Your task to perform on an android device: open app "Microsoft Authenticator" (install if not already installed) and enter user name: "Cornell@yahoo.com" and password: "bothersome" Image 0: 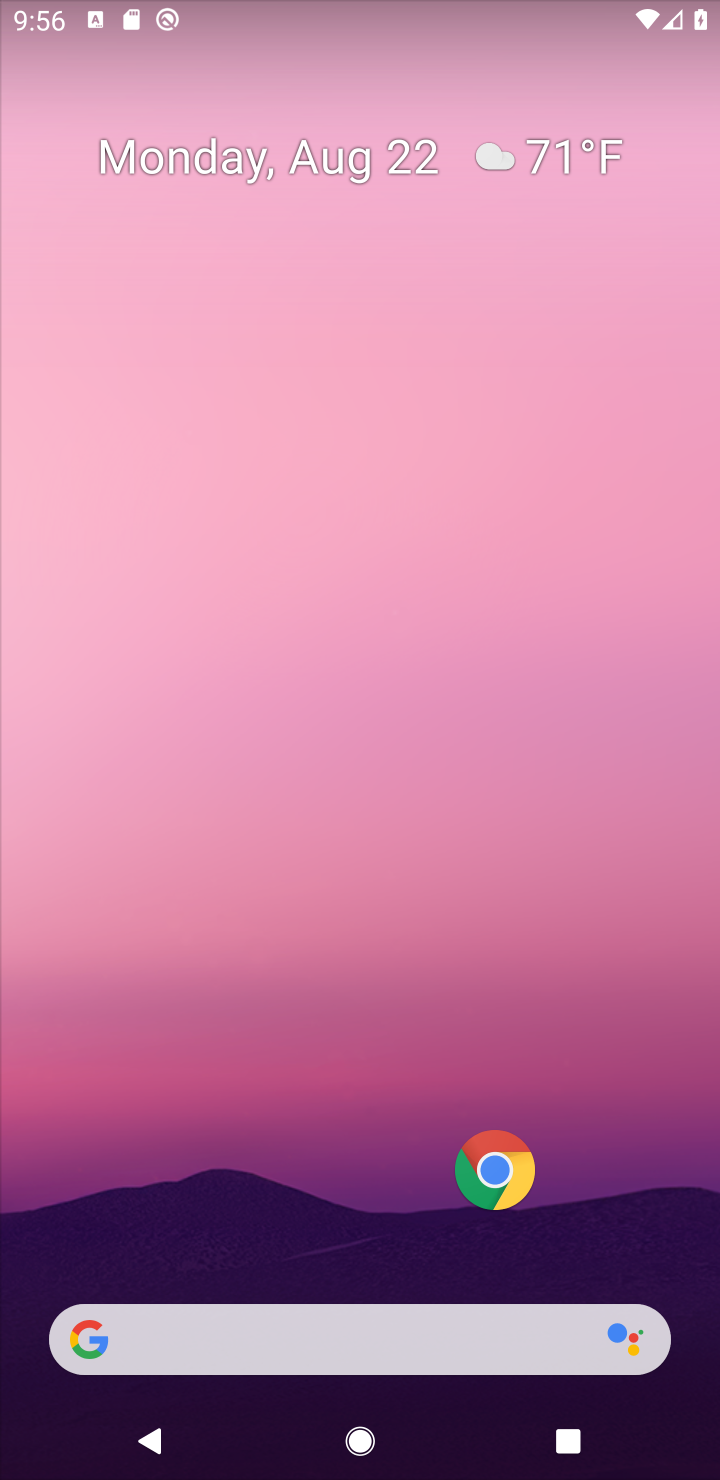
Step 0: drag from (466, 518) to (522, 82)
Your task to perform on an android device: open app "Microsoft Authenticator" (install if not already installed) and enter user name: "Cornell@yahoo.com" and password: "bothersome" Image 1: 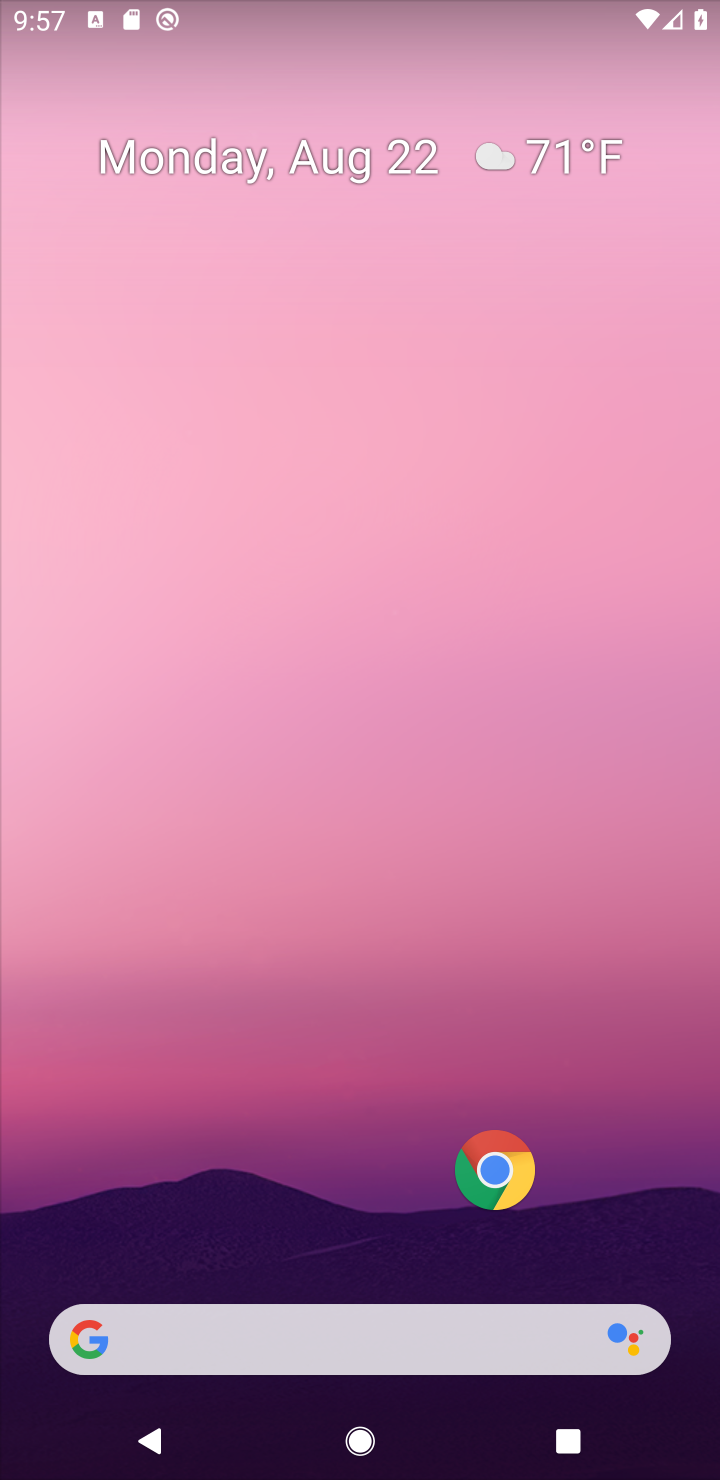
Step 1: drag from (264, 1085) to (371, 120)
Your task to perform on an android device: open app "Microsoft Authenticator" (install if not already installed) and enter user name: "Cornell@yahoo.com" and password: "bothersome" Image 2: 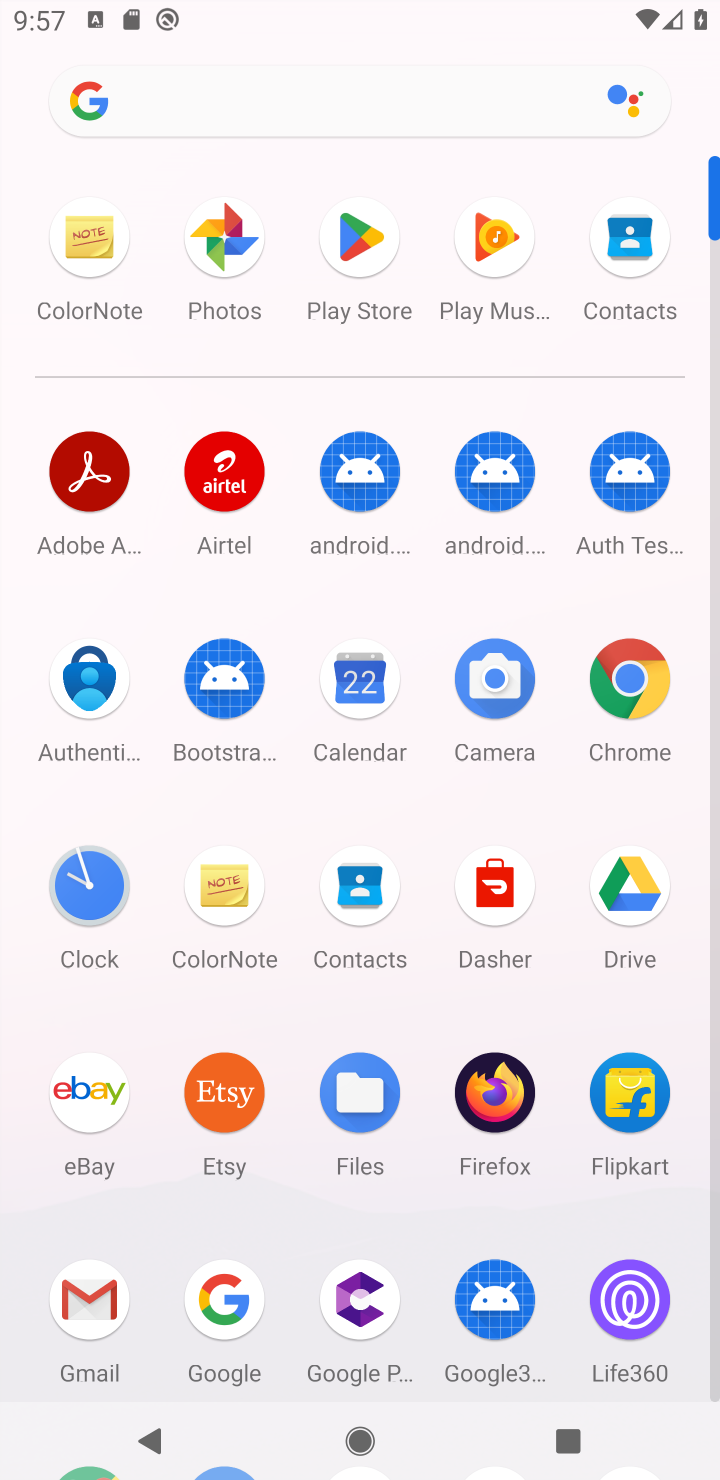
Step 2: click (344, 241)
Your task to perform on an android device: open app "Microsoft Authenticator" (install if not already installed) and enter user name: "Cornell@yahoo.com" and password: "bothersome" Image 3: 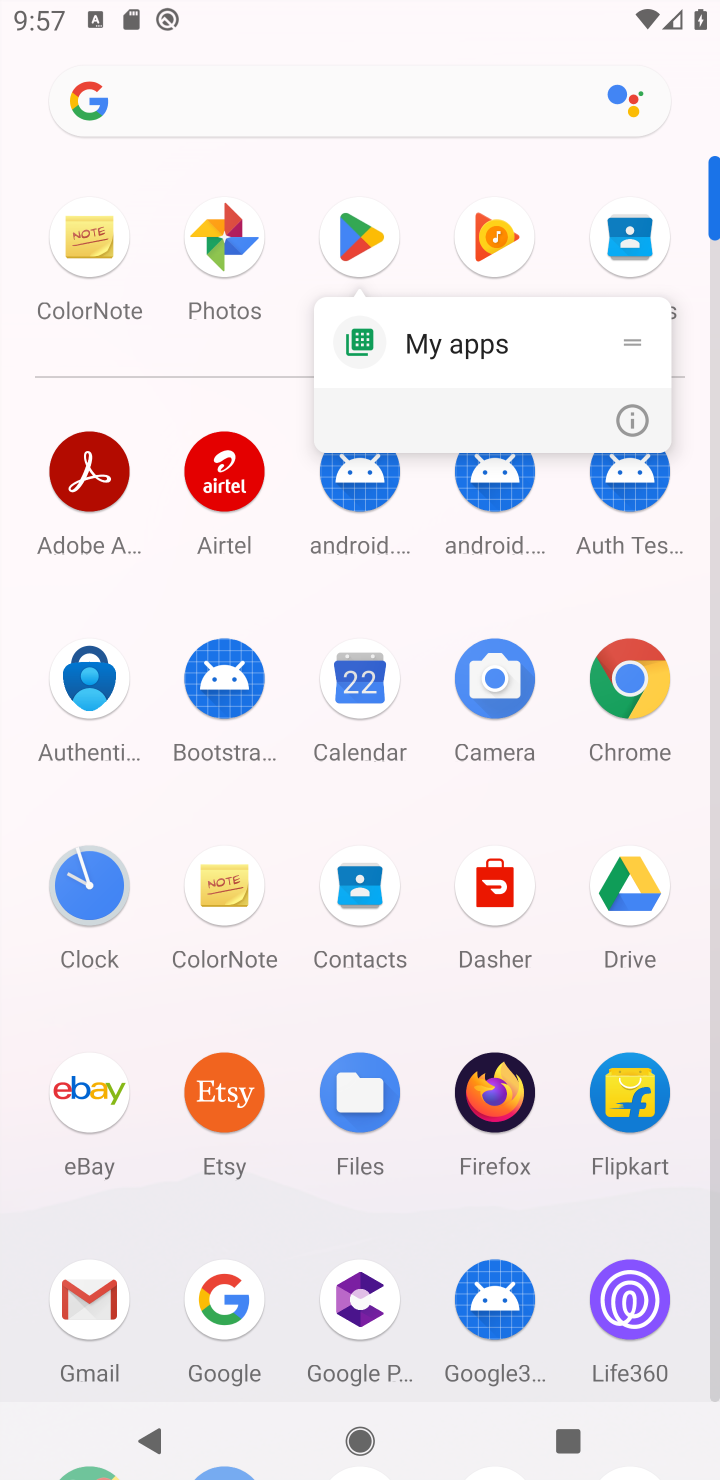
Step 3: click (63, 693)
Your task to perform on an android device: open app "Microsoft Authenticator" (install if not already installed) and enter user name: "Cornell@yahoo.com" and password: "bothersome" Image 4: 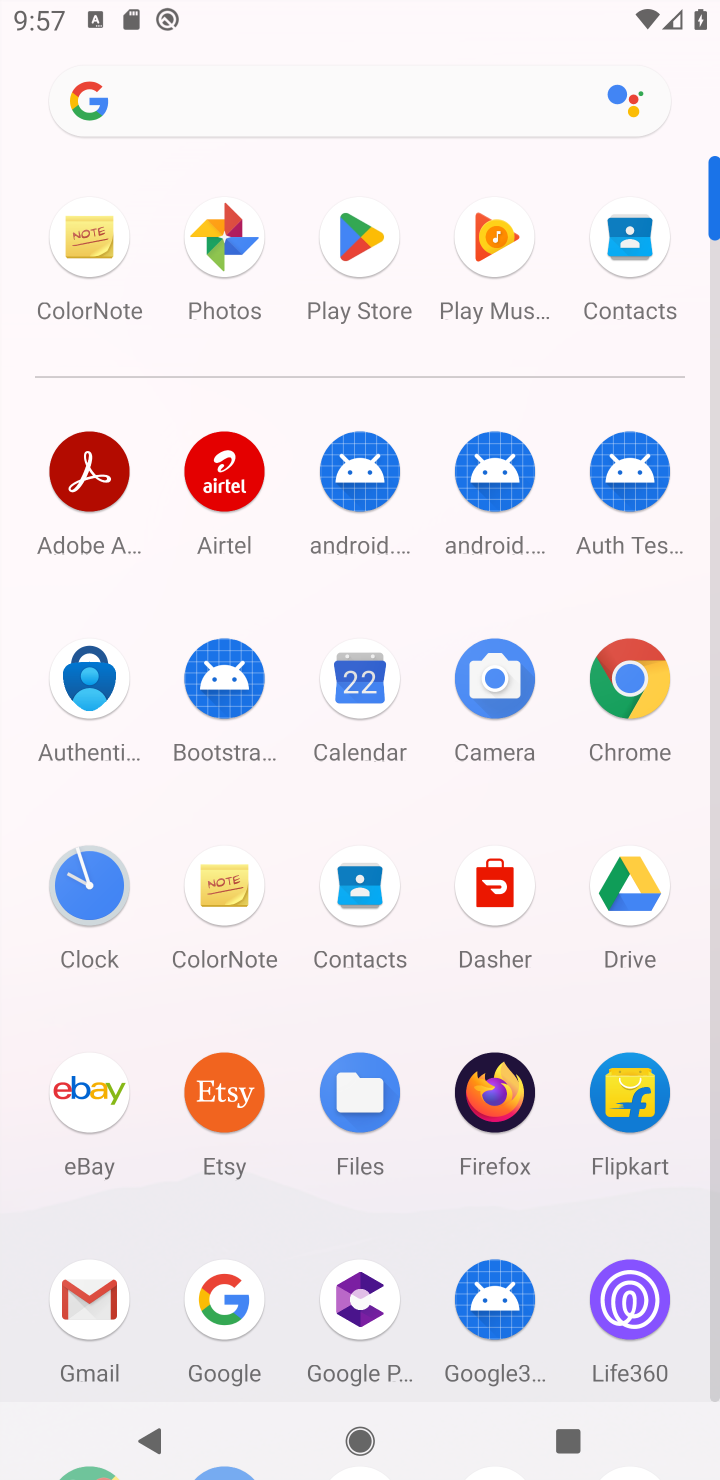
Step 4: click (79, 665)
Your task to perform on an android device: open app "Microsoft Authenticator" (install if not already installed) and enter user name: "Cornell@yahoo.com" and password: "bothersome" Image 5: 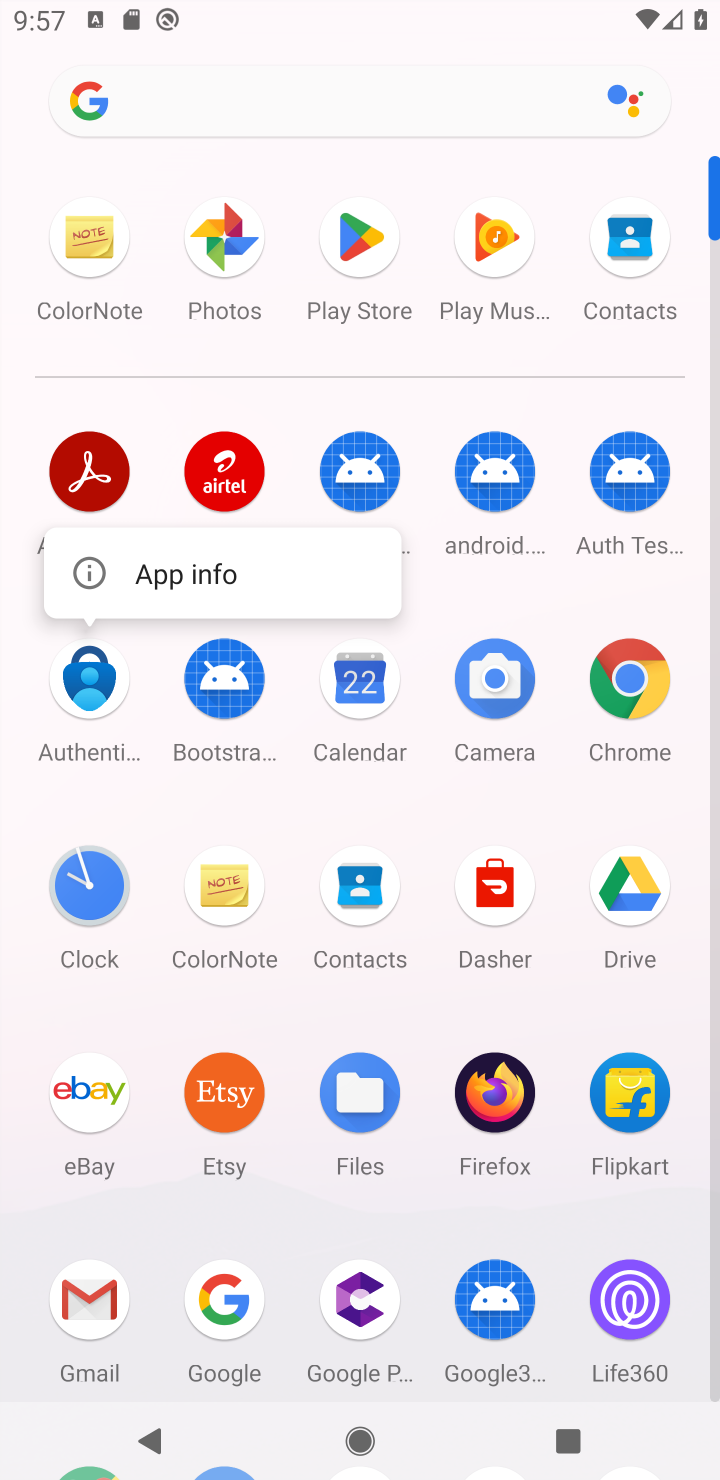
Step 5: click (82, 680)
Your task to perform on an android device: open app "Microsoft Authenticator" (install if not already installed) and enter user name: "Cornell@yahoo.com" and password: "bothersome" Image 6: 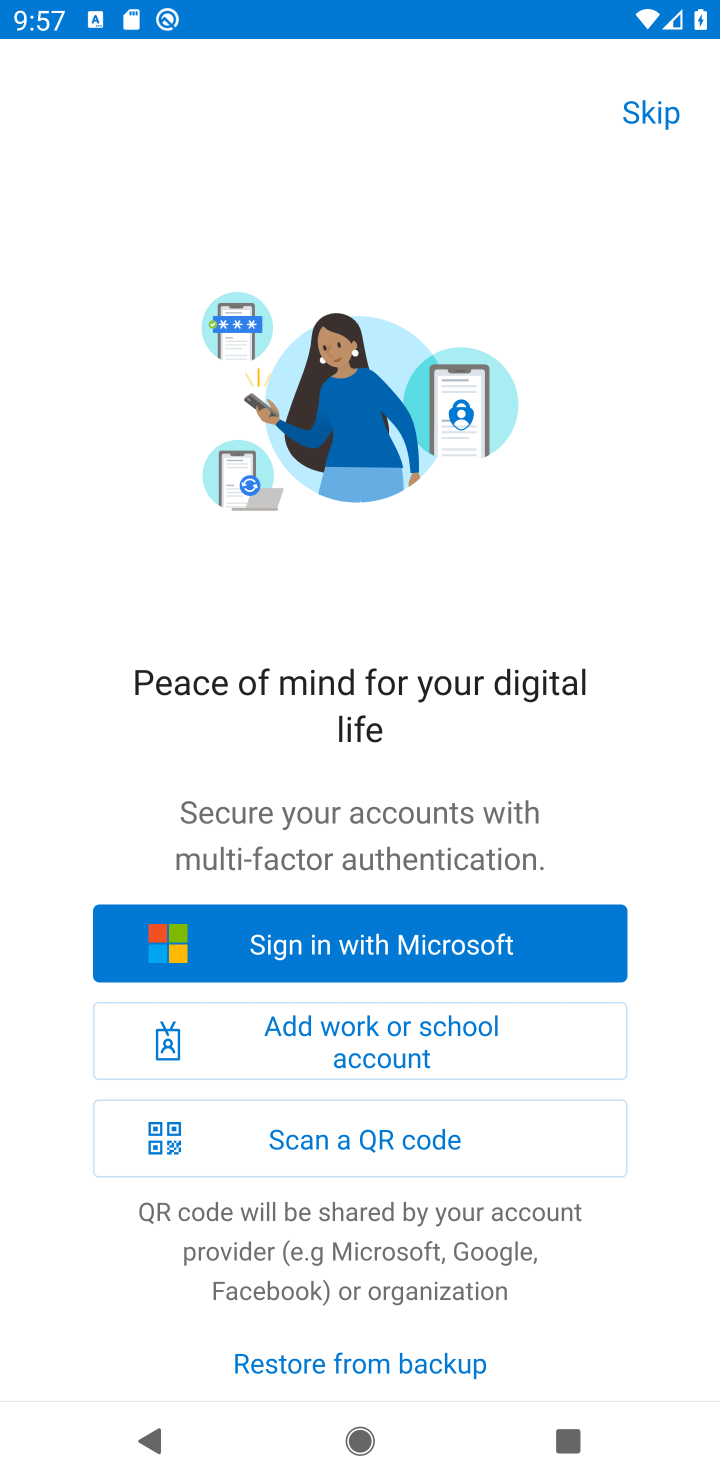
Step 6: click (653, 123)
Your task to perform on an android device: open app "Microsoft Authenticator" (install if not already installed) and enter user name: "Cornell@yahoo.com" and password: "bothersome" Image 7: 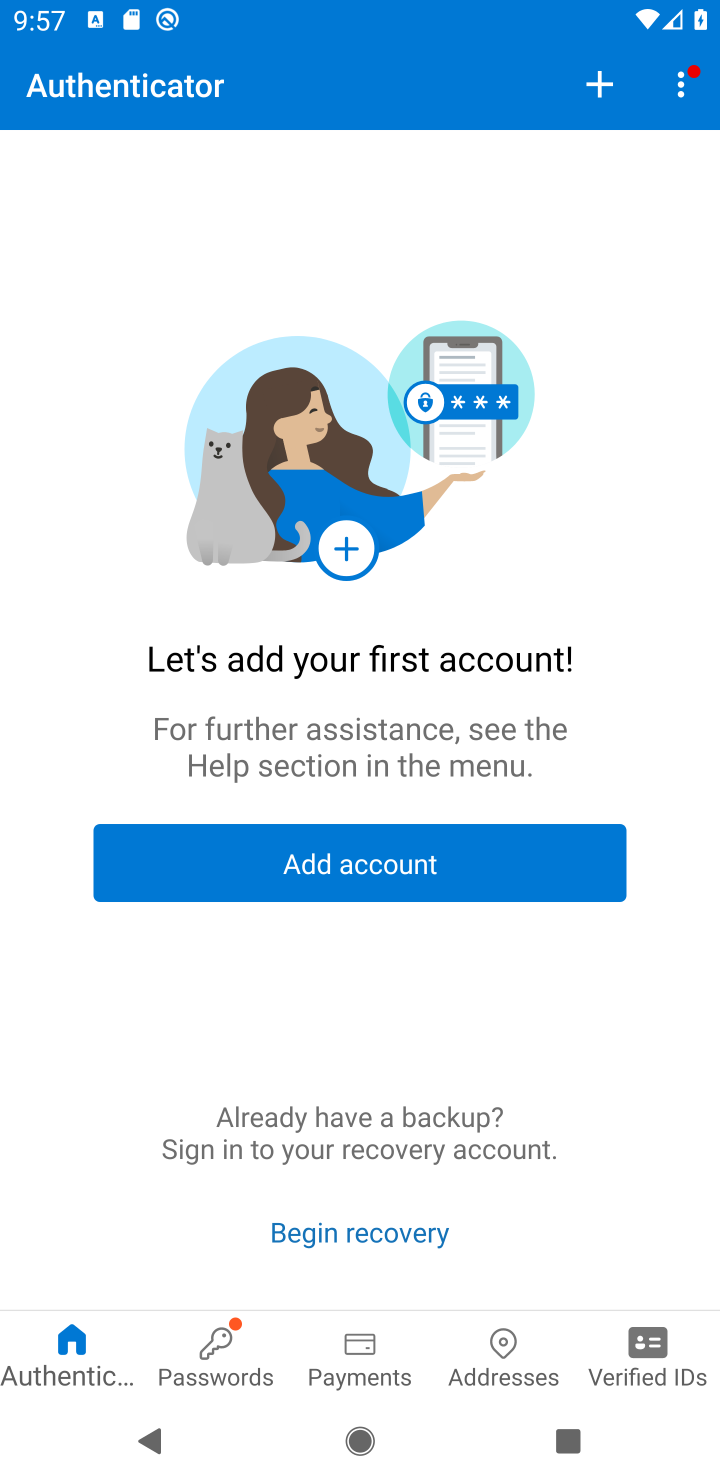
Step 7: click (311, 862)
Your task to perform on an android device: open app "Microsoft Authenticator" (install if not already installed) and enter user name: "Cornell@yahoo.com" and password: "bothersome" Image 8: 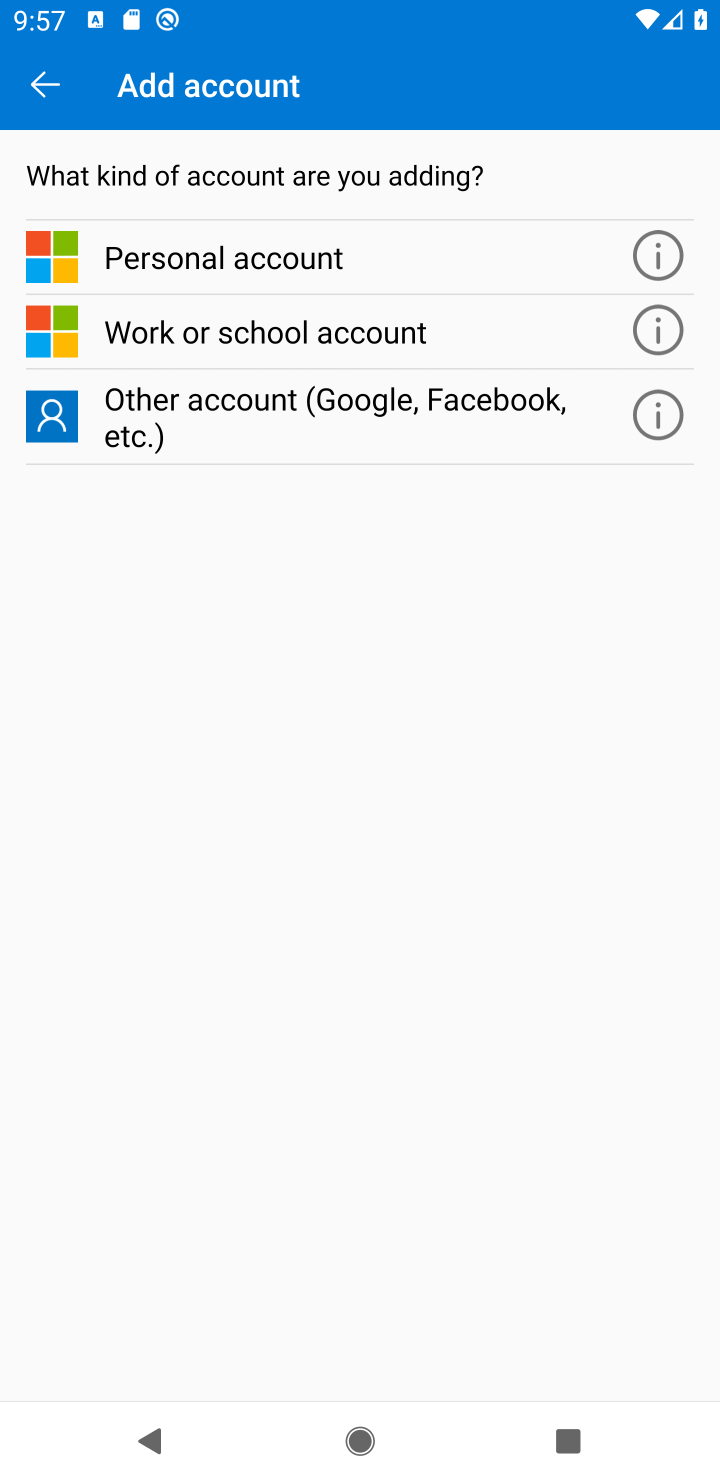
Step 8: task complete